Your task to perform on an android device: Go to Android settings Image 0: 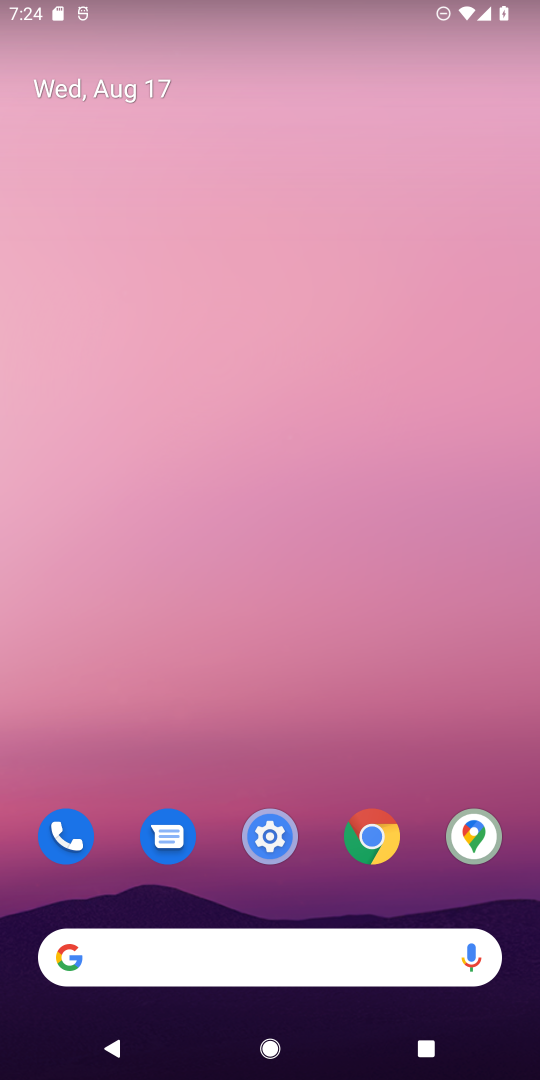
Step 0: drag from (263, 905) to (282, 267)
Your task to perform on an android device: Go to Android settings Image 1: 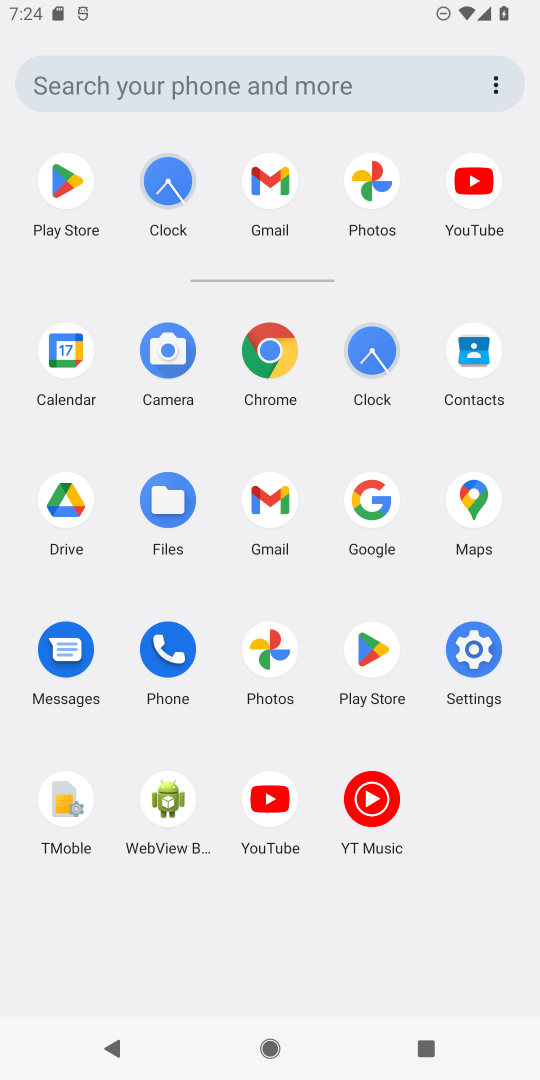
Step 1: click (460, 660)
Your task to perform on an android device: Go to Android settings Image 2: 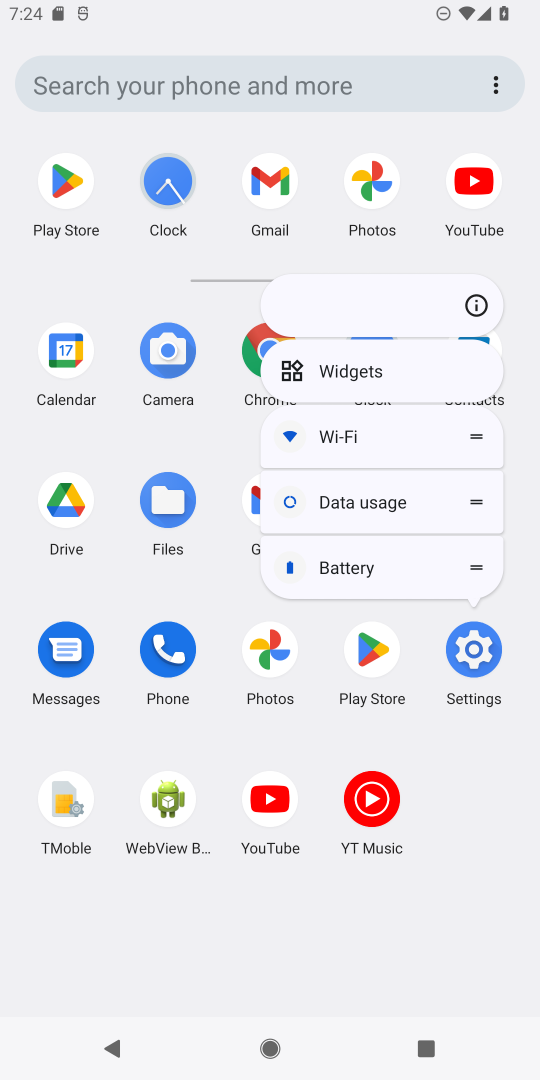
Step 2: click (466, 635)
Your task to perform on an android device: Go to Android settings Image 3: 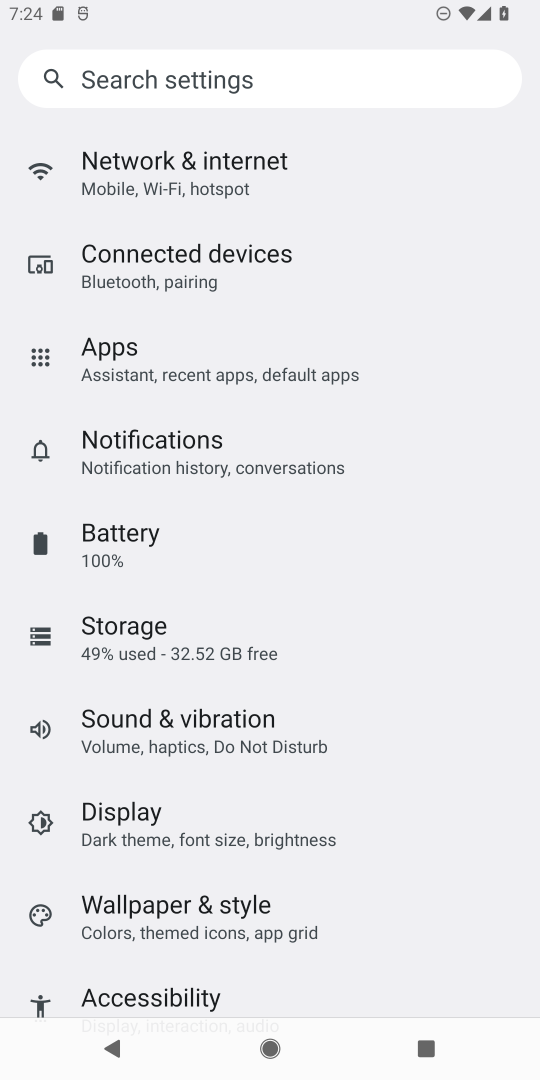
Step 3: task complete